Your task to perform on an android device: find photos in the google photos app Image 0: 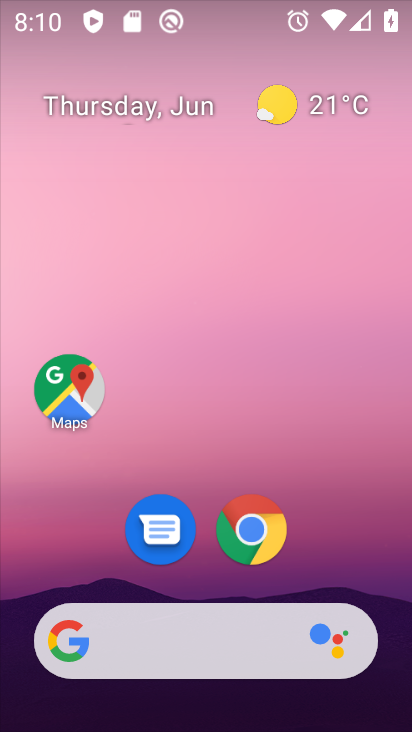
Step 0: drag from (390, 685) to (330, 202)
Your task to perform on an android device: find photos in the google photos app Image 1: 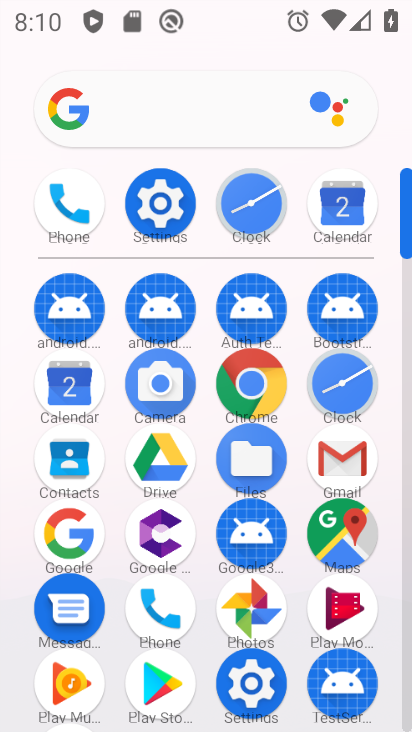
Step 1: click (249, 608)
Your task to perform on an android device: find photos in the google photos app Image 2: 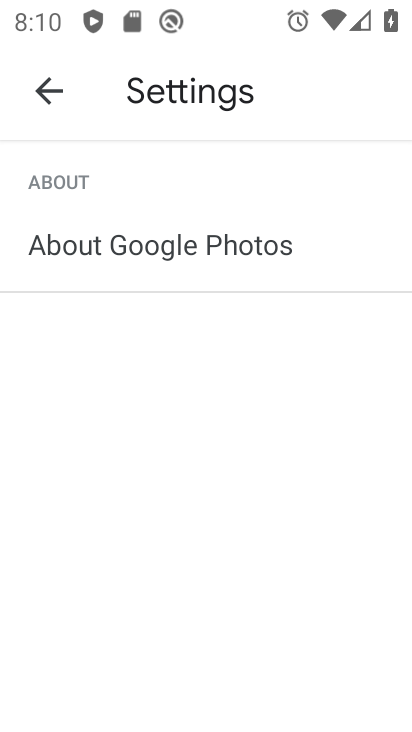
Step 2: click (41, 91)
Your task to perform on an android device: find photos in the google photos app Image 3: 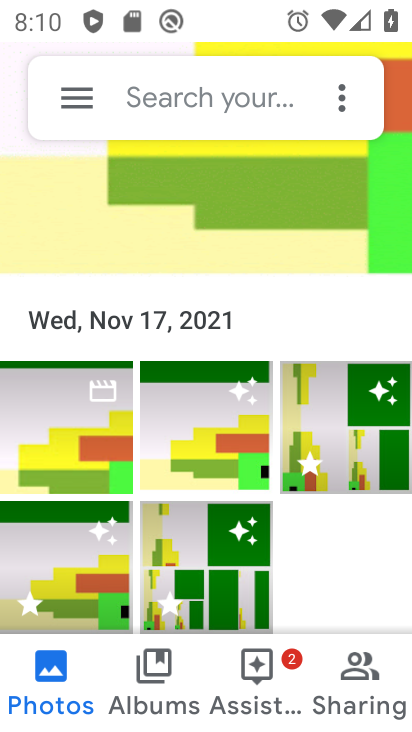
Step 3: click (196, 418)
Your task to perform on an android device: find photos in the google photos app Image 4: 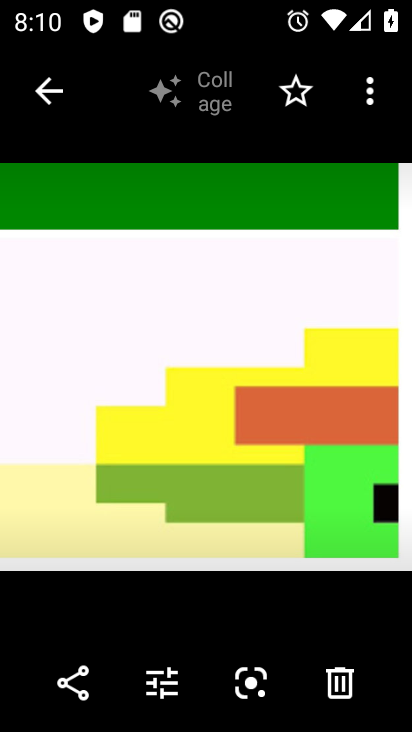
Step 4: click (405, 257)
Your task to perform on an android device: find photos in the google photos app Image 5: 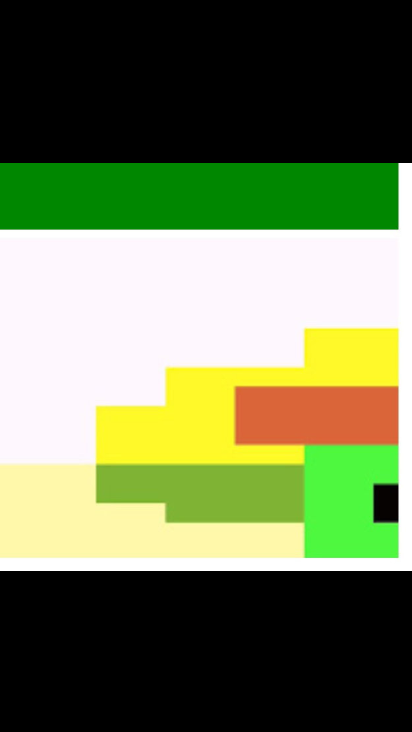
Step 5: click (75, 134)
Your task to perform on an android device: find photos in the google photos app Image 6: 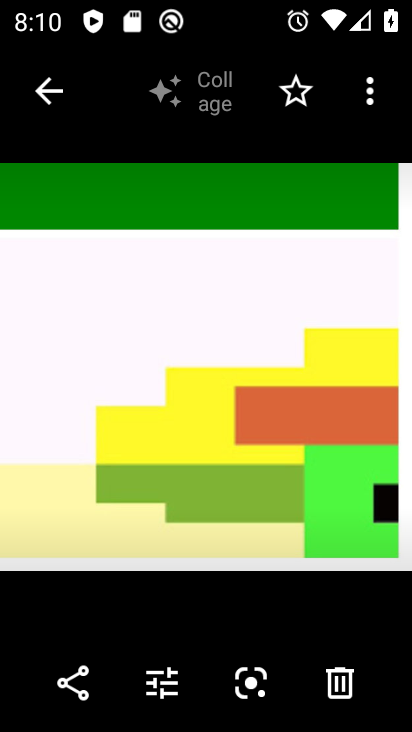
Step 6: click (54, 90)
Your task to perform on an android device: find photos in the google photos app Image 7: 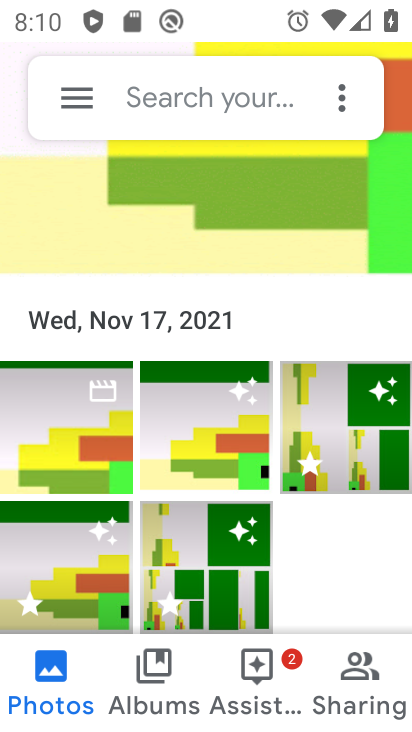
Step 7: click (349, 396)
Your task to perform on an android device: find photos in the google photos app Image 8: 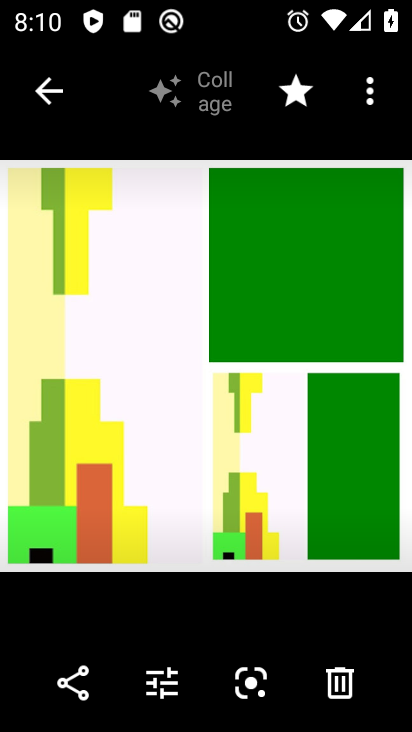
Step 8: click (36, 87)
Your task to perform on an android device: find photos in the google photos app Image 9: 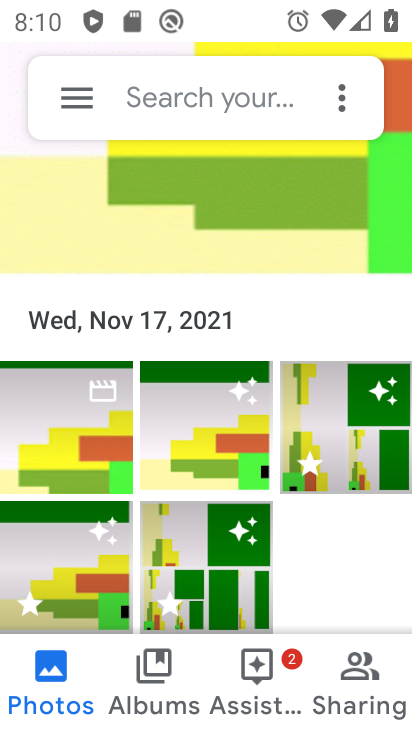
Step 9: click (180, 573)
Your task to perform on an android device: find photos in the google photos app Image 10: 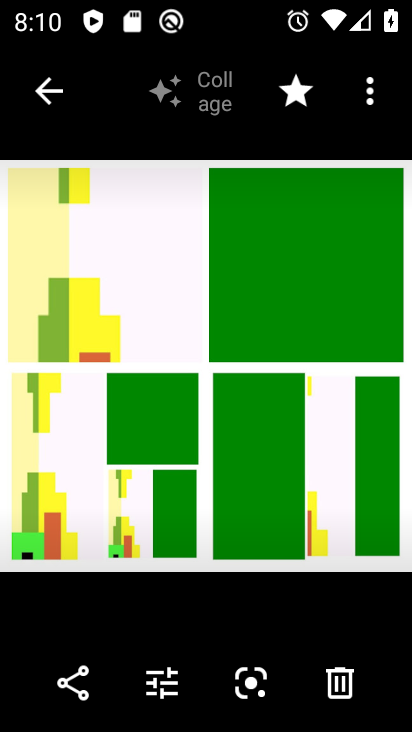
Step 10: click (40, 91)
Your task to perform on an android device: find photos in the google photos app Image 11: 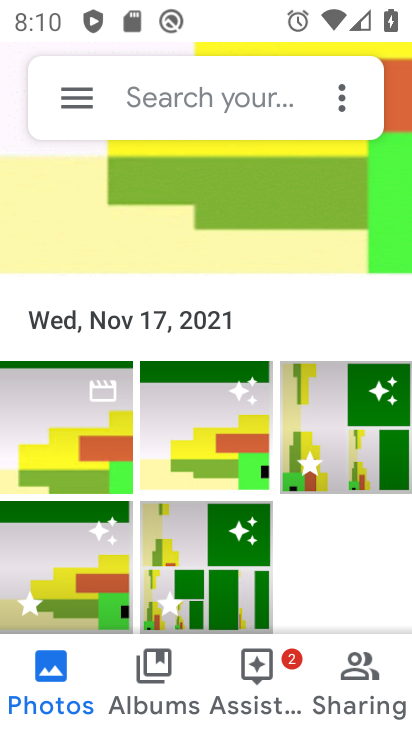
Step 11: task complete